Your task to perform on an android device: add a contact in the contacts app Image 0: 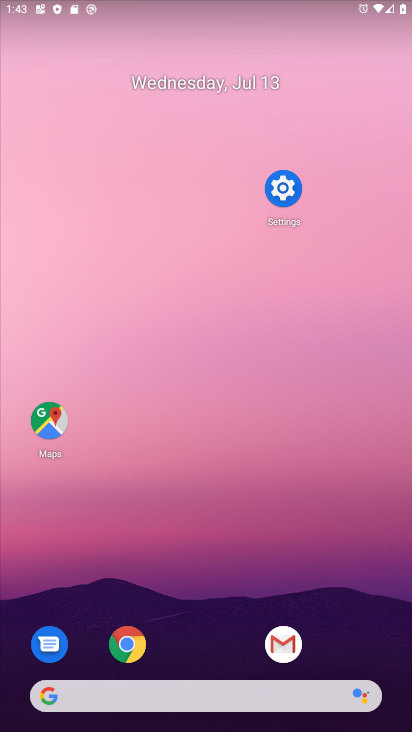
Step 0: drag from (257, 697) to (271, 339)
Your task to perform on an android device: add a contact in the contacts app Image 1: 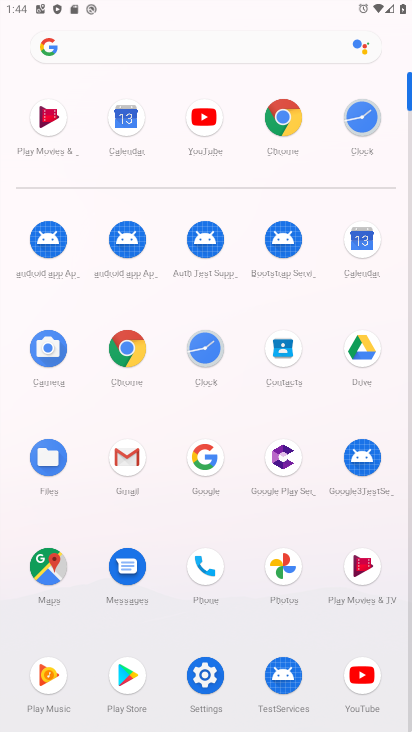
Step 1: click (203, 555)
Your task to perform on an android device: add a contact in the contacts app Image 2: 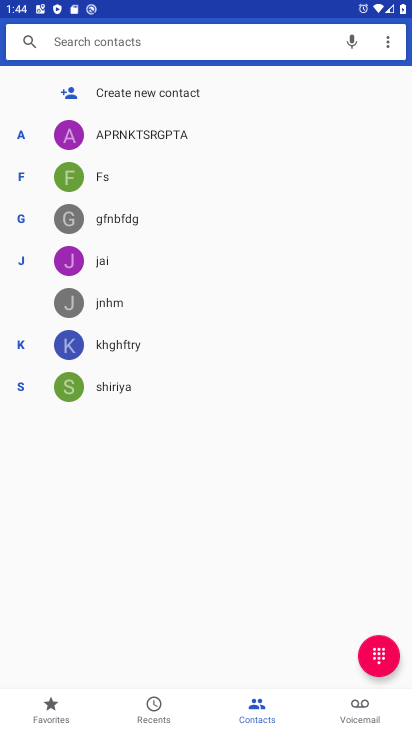
Step 2: click (187, 97)
Your task to perform on an android device: add a contact in the contacts app Image 3: 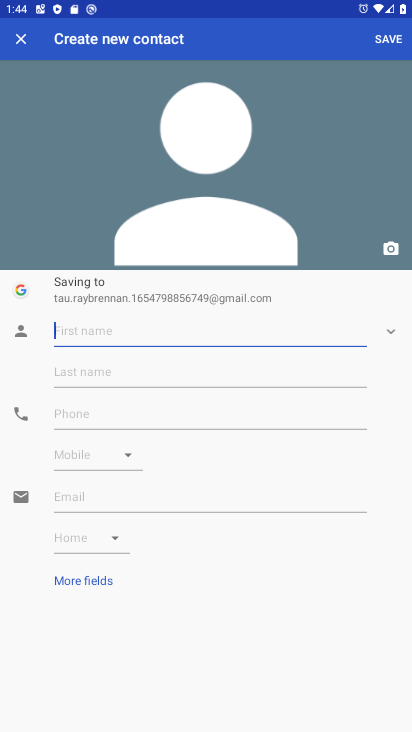
Step 3: click (75, 335)
Your task to perform on an android device: add a contact in the contacts app Image 4: 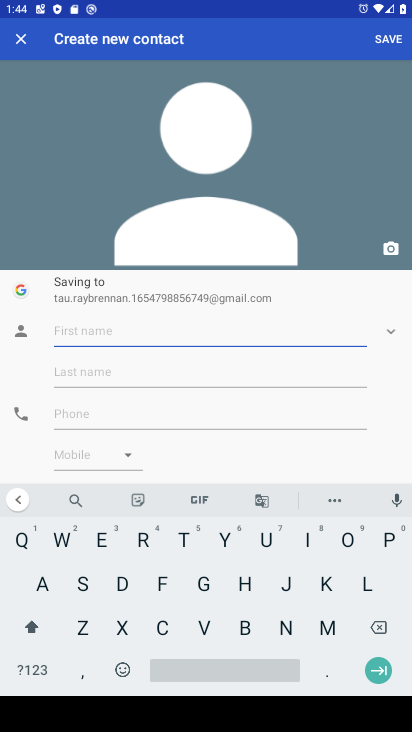
Step 4: click (158, 577)
Your task to perform on an android device: add a contact in the contacts app Image 5: 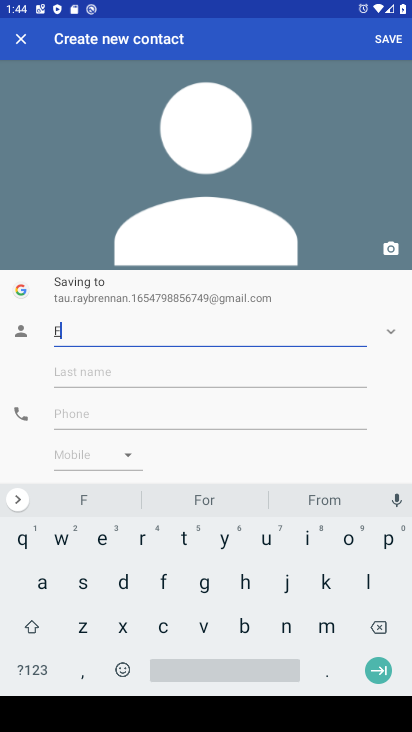
Step 5: click (175, 603)
Your task to perform on an android device: add a contact in the contacts app Image 6: 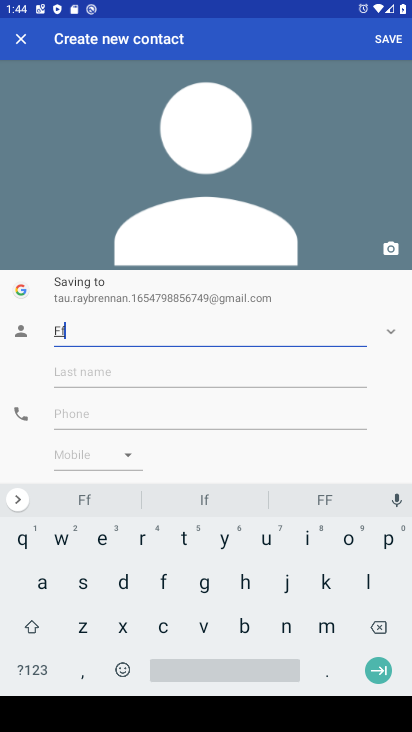
Step 6: click (103, 613)
Your task to perform on an android device: add a contact in the contacts app Image 7: 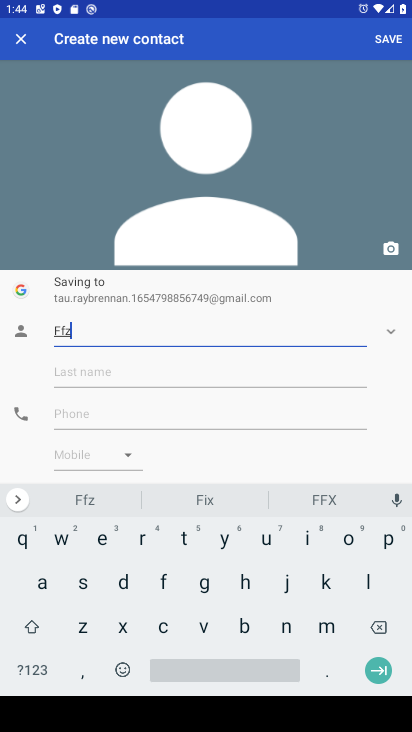
Step 7: click (127, 403)
Your task to perform on an android device: add a contact in the contacts app Image 8: 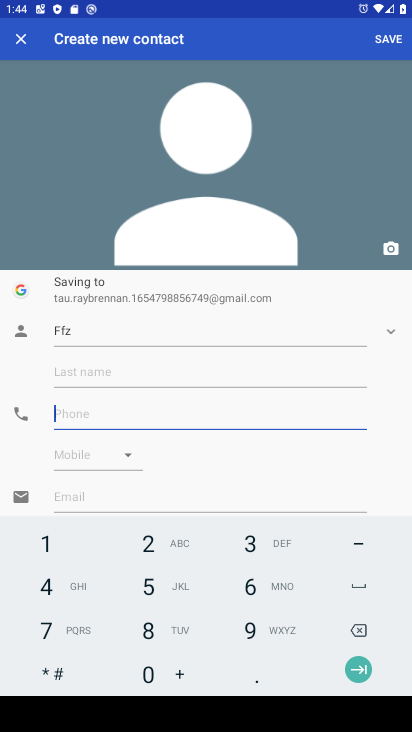
Step 8: drag from (166, 594) to (262, 601)
Your task to perform on an android device: add a contact in the contacts app Image 9: 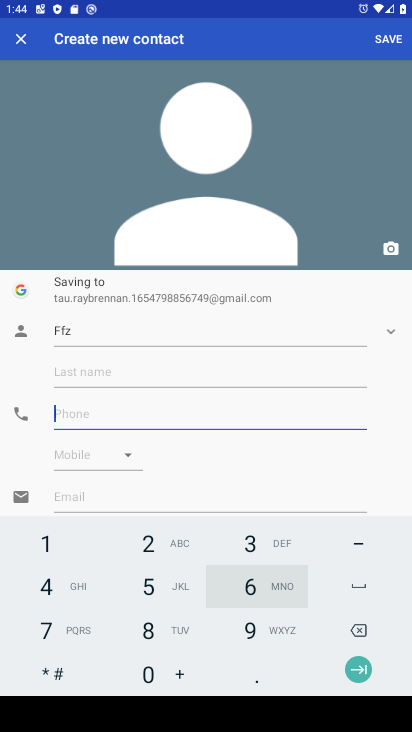
Step 9: drag from (262, 589) to (242, 624)
Your task to perform on an android device: add a contact in the contacts app Image 10: 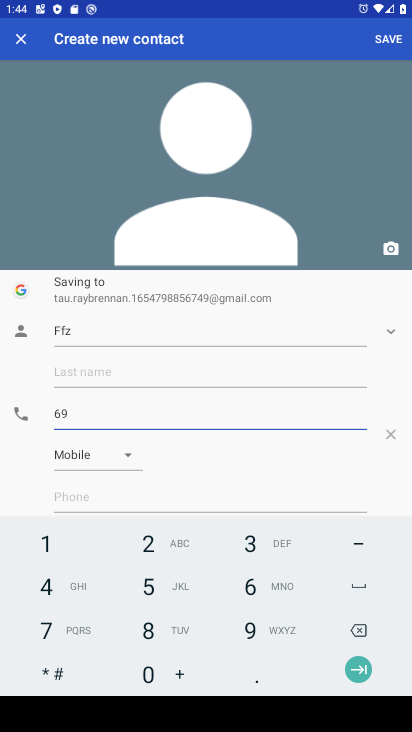
Step 10: click (148, 615)
Your task to perform on an android device: add a contact in the contacts app Image 11: 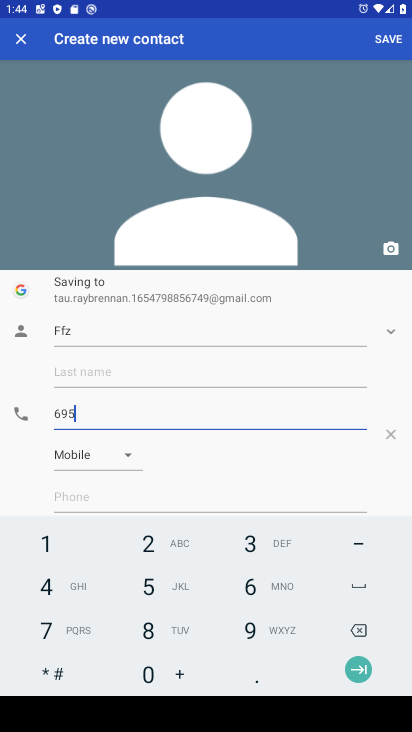
Step 11: click (167, 545)
Your task to perform on an android device: add a contact in the contacts app Image 12: 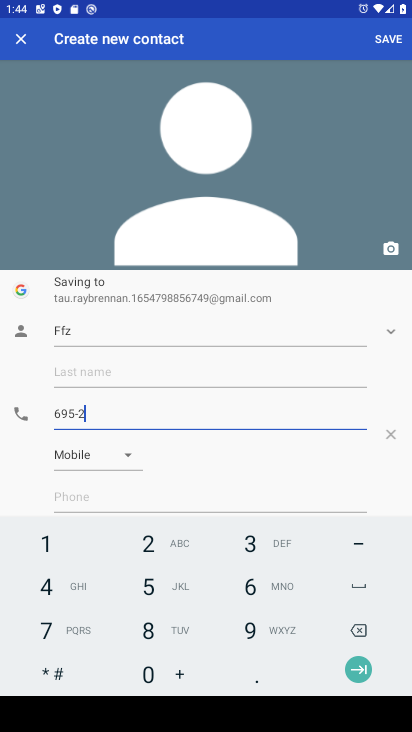
Step 12: click (62, 549)
Your task to perform on an android device: add a contact in the contacts app Image 13: 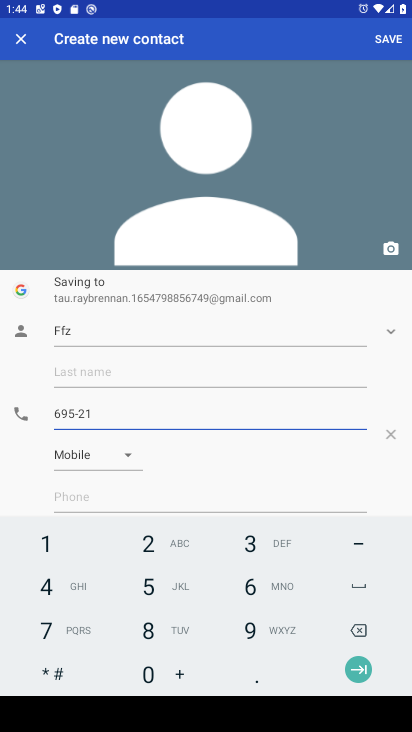
Step 13: click (388, 40)
Your task to perform on an android device: add a contact in the contacts app Image 14: 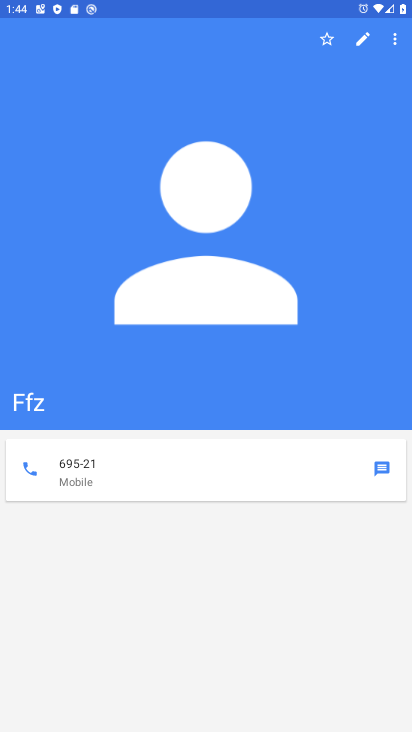
Step 14: task complete